Your task to perform on an android device: Open wifi settings Image 0: 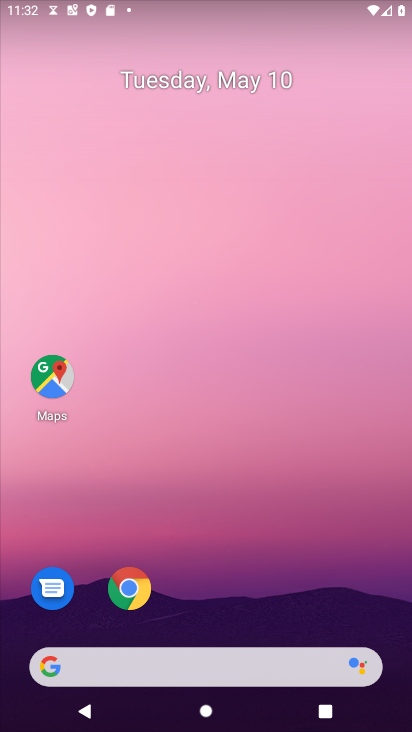
Step 0: drag from (289, 595) to (133, 158)
Your task to perform on an android device: Open wifi settings Image 1: 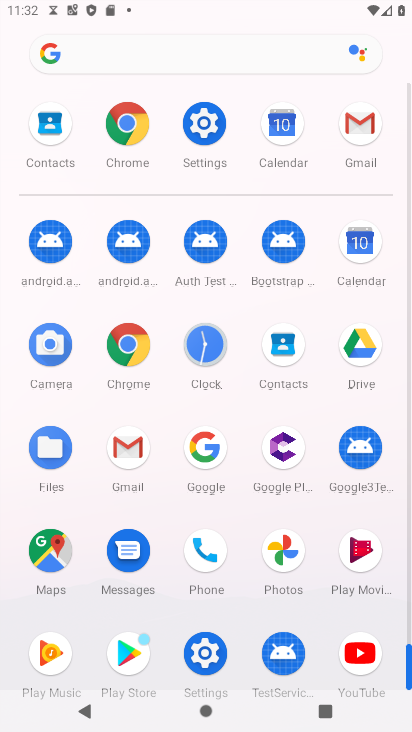
Step 1: click (192, 127)
Your task to perform on an android device: Open wifi settings Image 2: 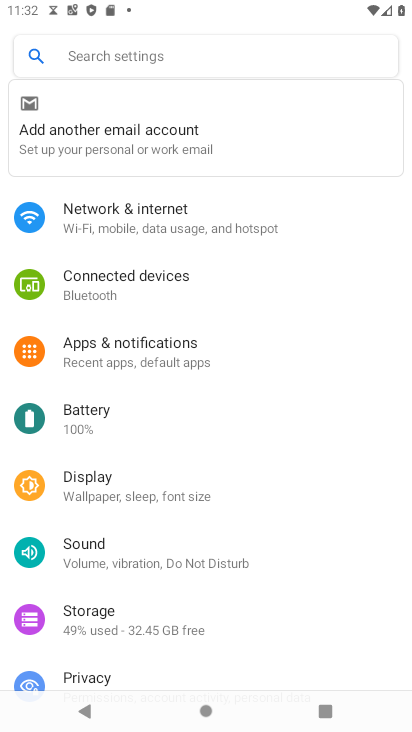
Step 2: click (137, 214)
Your task to perform on an android device: Open wifi settings Image 3: 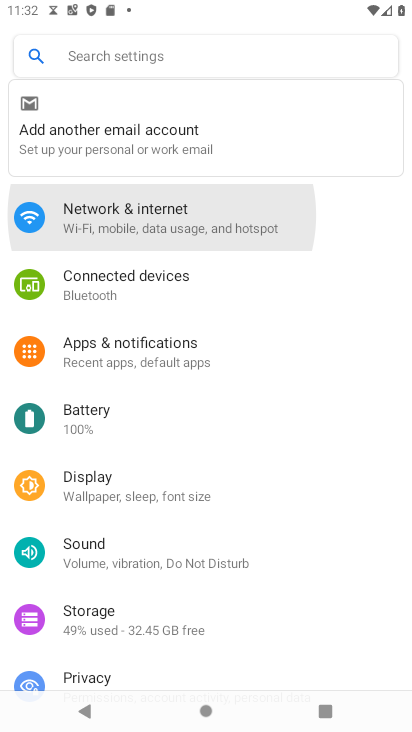
Step 3: click (137, 214)
Your task to perform on an android device: Open wifi settings Image 4: 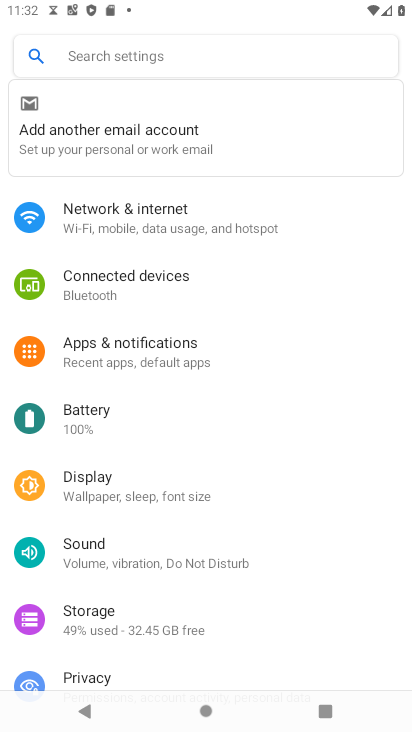
Step 4: click (139, 213)
Your task to perform on an android device: Open wifi settings Image 5: 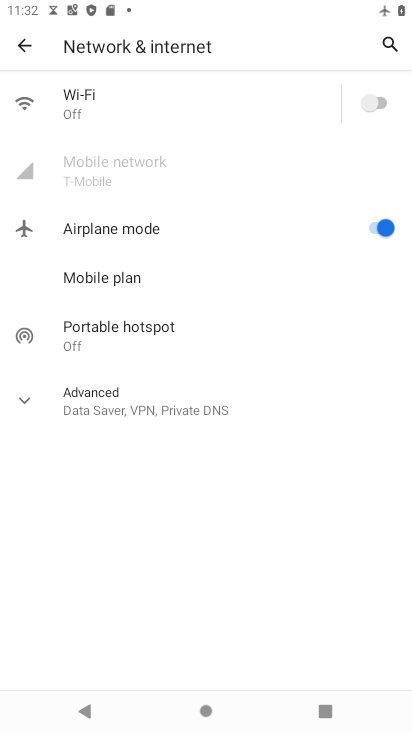
Step 5: click (365, 104)
Your task to perform on an android device: Open wifi settings Image 6: 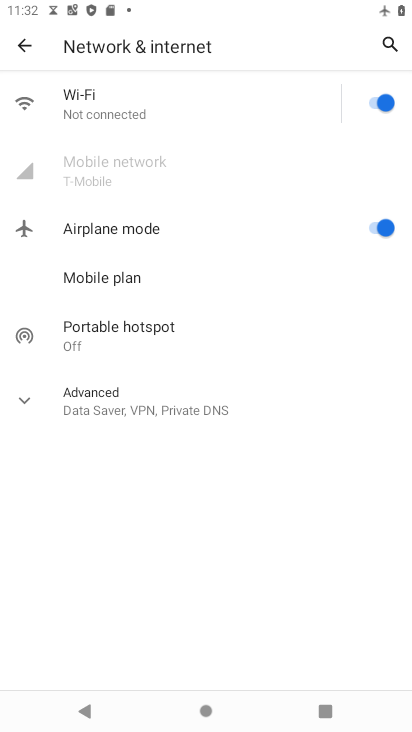
Step 6: task complete